Your task to perform on an android device: make emails show in primary in the gmail app Image 0: 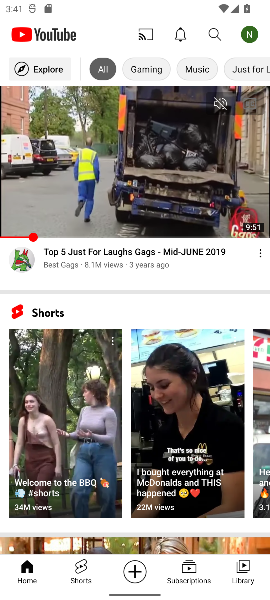
Step 0: task complete